Your task to perform on an android device: Open Google Chrome and open the bookmarks view Image 0: 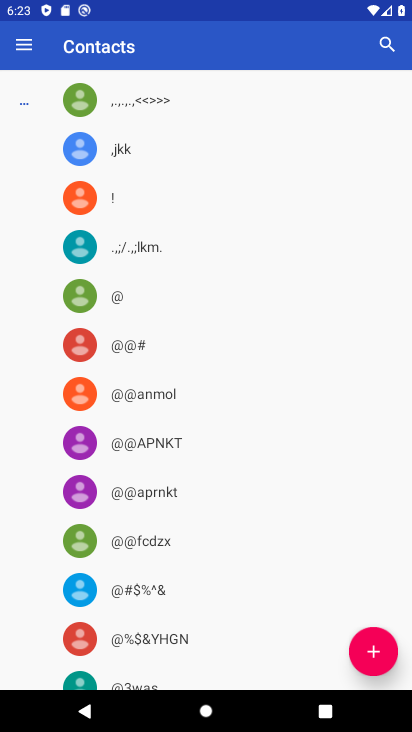
Step 0: press home button
Your task to perform on an android device: Open Google Chrome and open the bookmarks view Image 1: 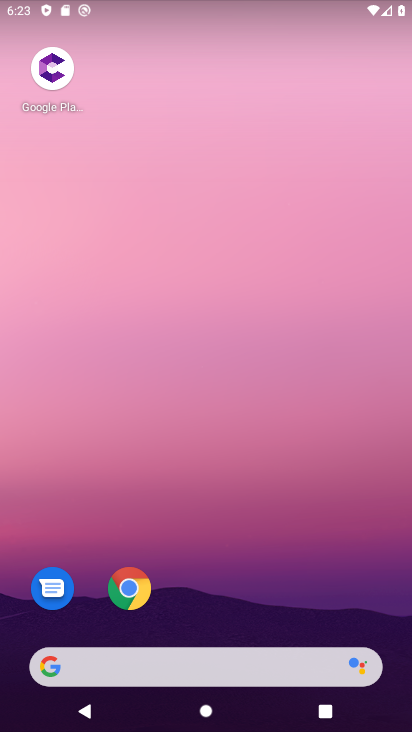
Step 1: click (135, 597)
Your task to perform on an android device: Open Google Chrome and open the bookmarks view Image 2: 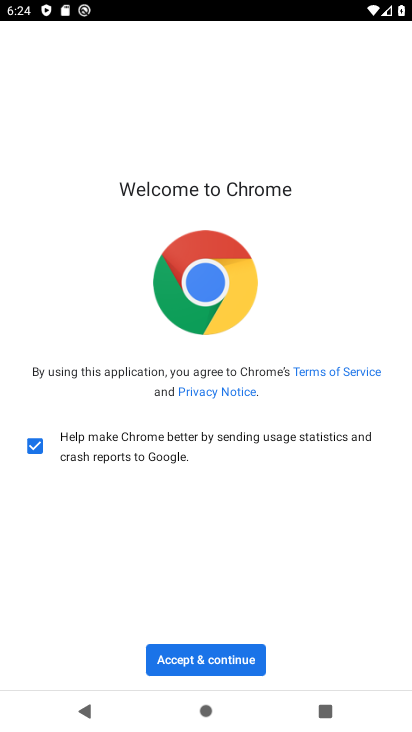
Step 2: click (173, 656)
Your task to perform on an android device: Open Google Chrome and open the bookmarks view Image 3: 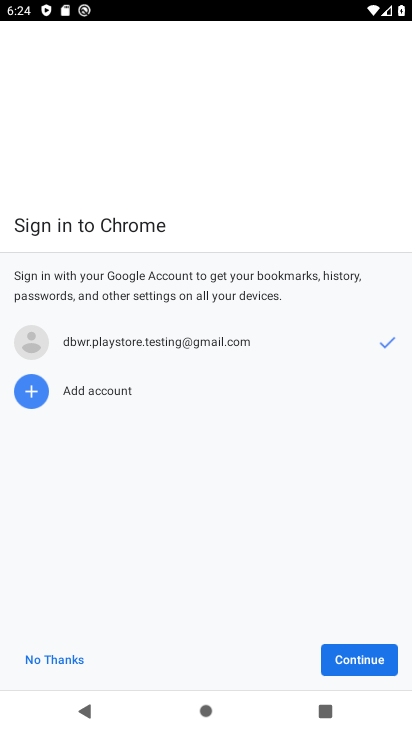
Step 3: click (352, 656)
Your task to perform on an android device: Open Google Chrome and open the bookmarks view Image 4: 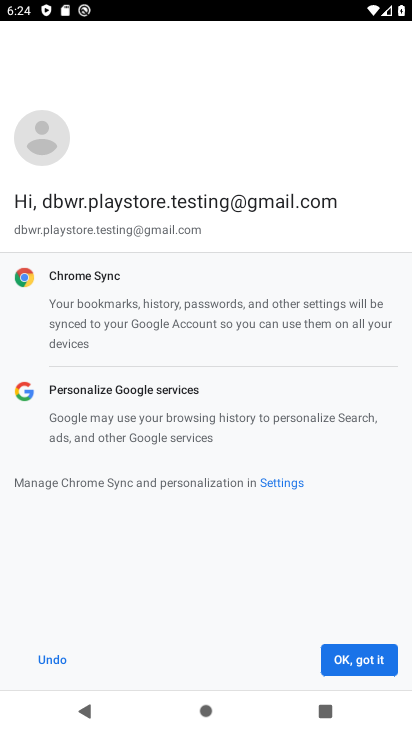
Step 4: click (343, 667)
Your task to perform on an android device: Open Google Chrome and open the bookmarks view Image 5: 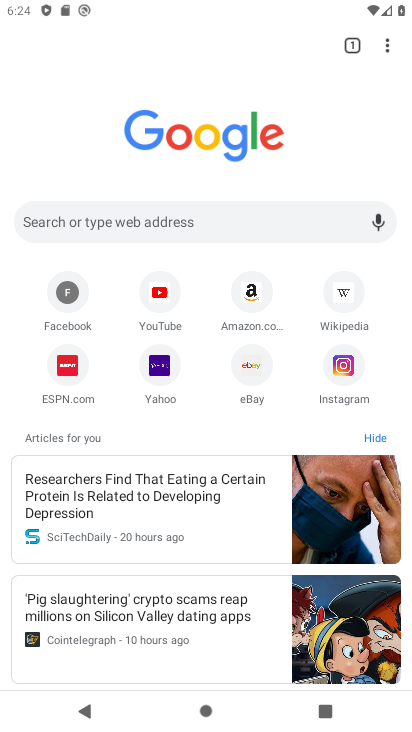
Step 5: click (391, 30)
Your task to perform on an android device: Open Google Chrome and open the bookmarks view Image 6: 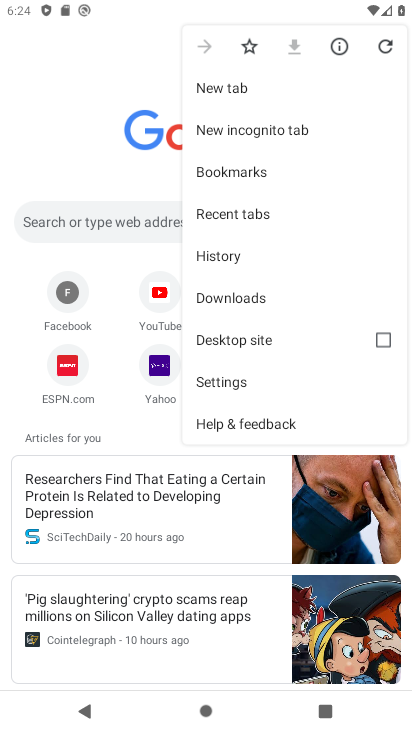
Step 6: click (263, 186)
Your task to perform on an android device: Open Google Chrome and open the bookmarks view Image 7: 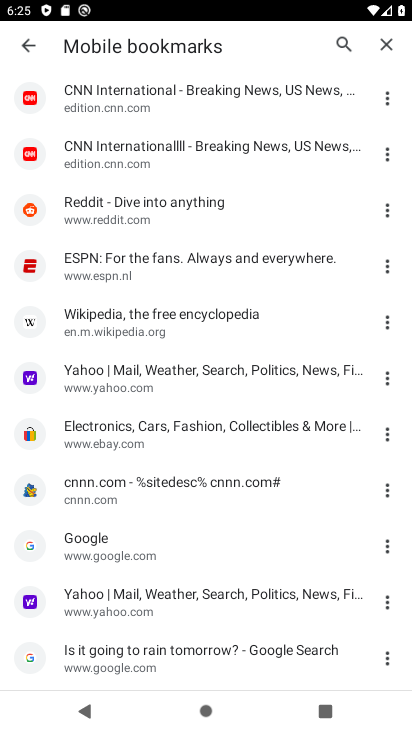
Step 7: task complete